Your task to perform on an android device: Find coffee shops on Maps Image 0: 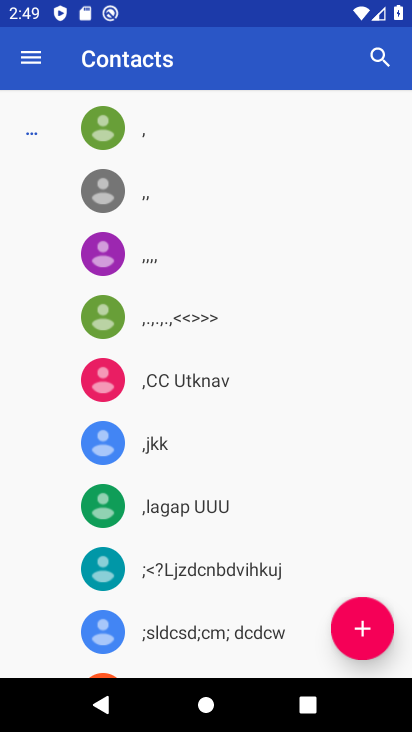
Step 0: press home button
Your task to perform on an android device: Find coffee shops on Maps Image 1: 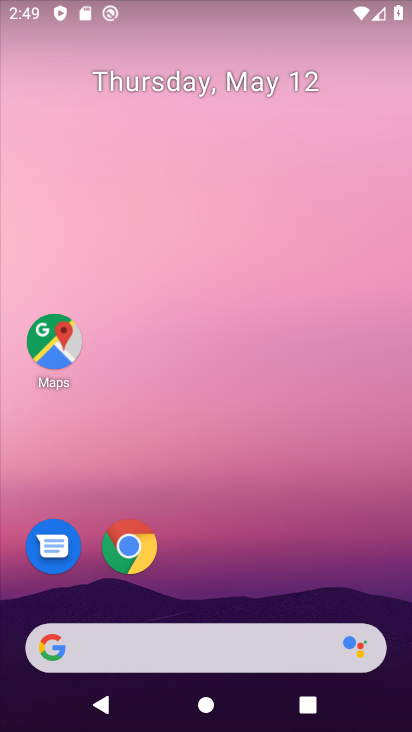
Step 1: click (55, 332)
Your task to perform on an android device: Find coffee shops on Maps Image 2: 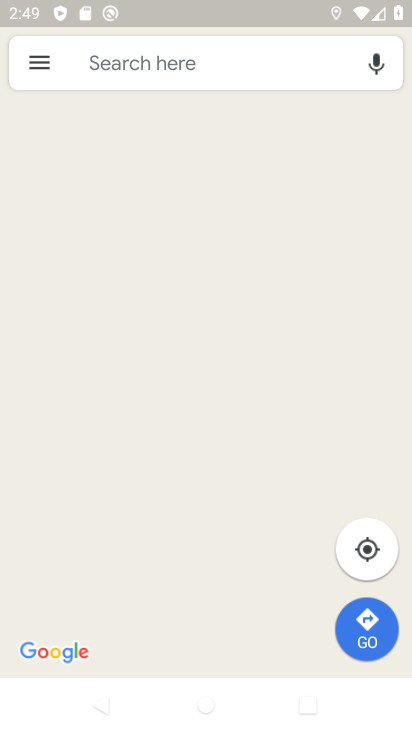
Step 2: click (216, 56)
Your task to perform on an android device: Find coffee shops on Maps Image 3: 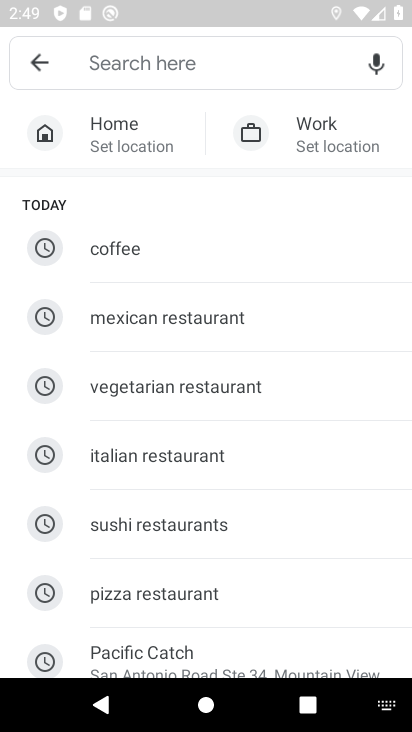
Step 3: click (122, 247)
Your task to perform on an android device: Find coffee shops on Maps Image 4: 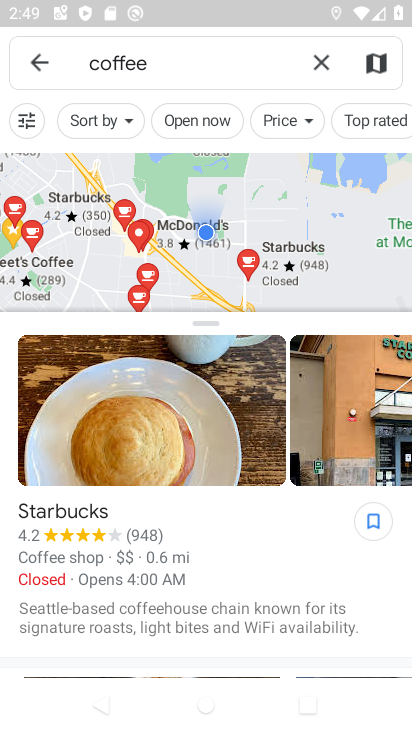
Step 4: task complete